Your task to perform on an android device: check the backup settings in the google photos Image 0: 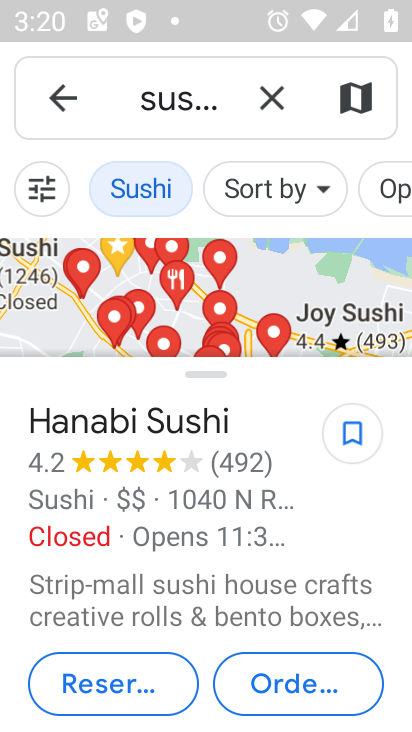
Step 0: press home button
Your task to perform on an android device: check the backup settings in the google photos Image 1: 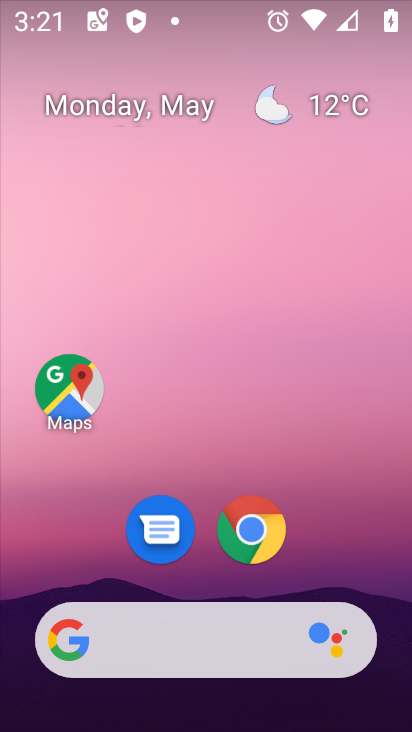
Step 1: drag from (307, 585) to (327, 4)
Your task to perform on an android device: check the backup settings in the google photos Image 2: 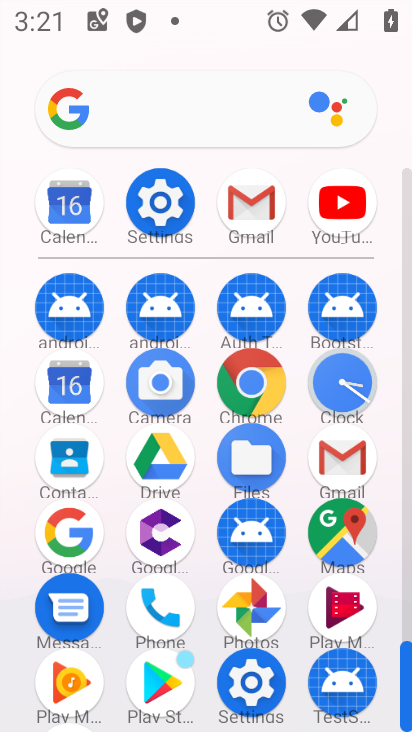
Step 2: click (256, 599)
Your task to perform on an android device: check the backup settings in the google photos Image 3: 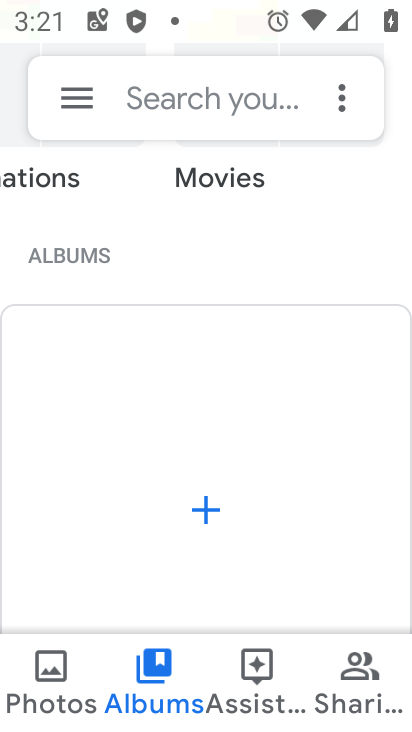
Step 3: click (74, 94)
Your task to perform on an android device: check the backup settings in the google photos Image 4: 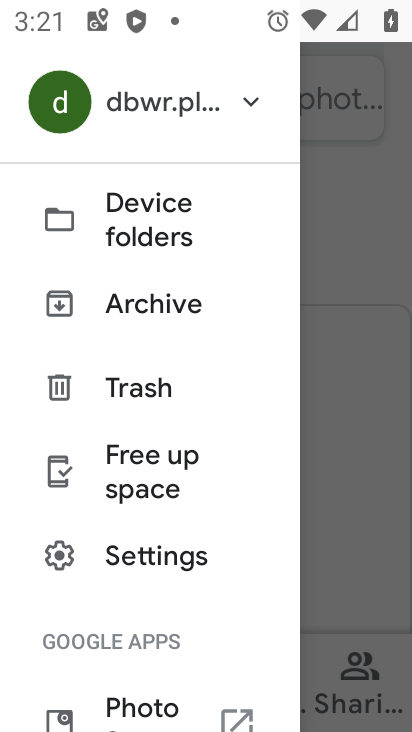
Step 4: click (160, 554)
Your task to perform on an android device: check the backup settings in the google photos Image 5: 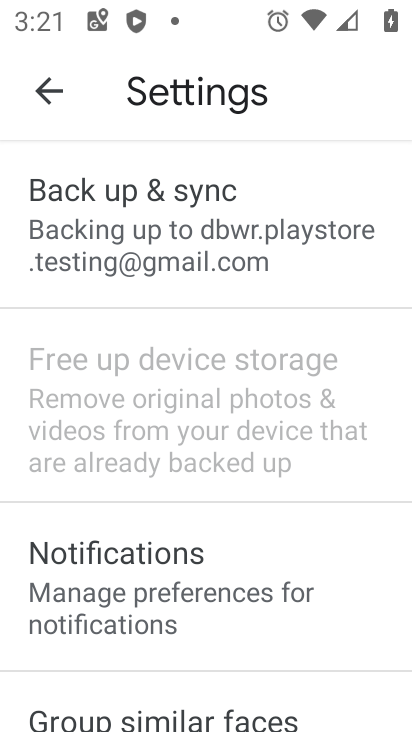
Step 5: click (176, 226)
Your task to perform on an android device: check the backup settings in the google photos Image 6: 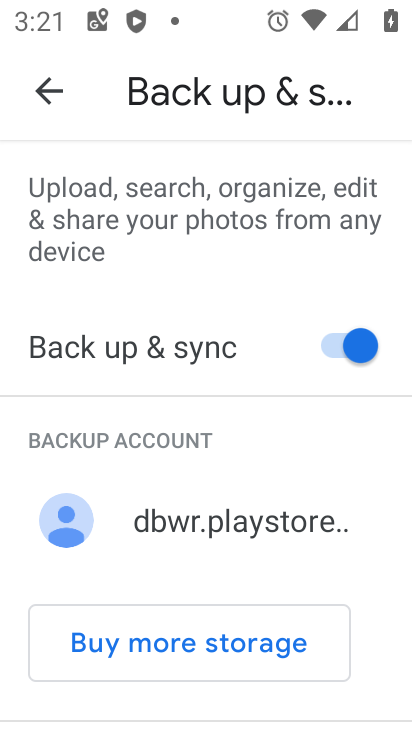
Step 6: task complete